Your task to perform on an android device: Do I have any events tomorrow? Image 0: 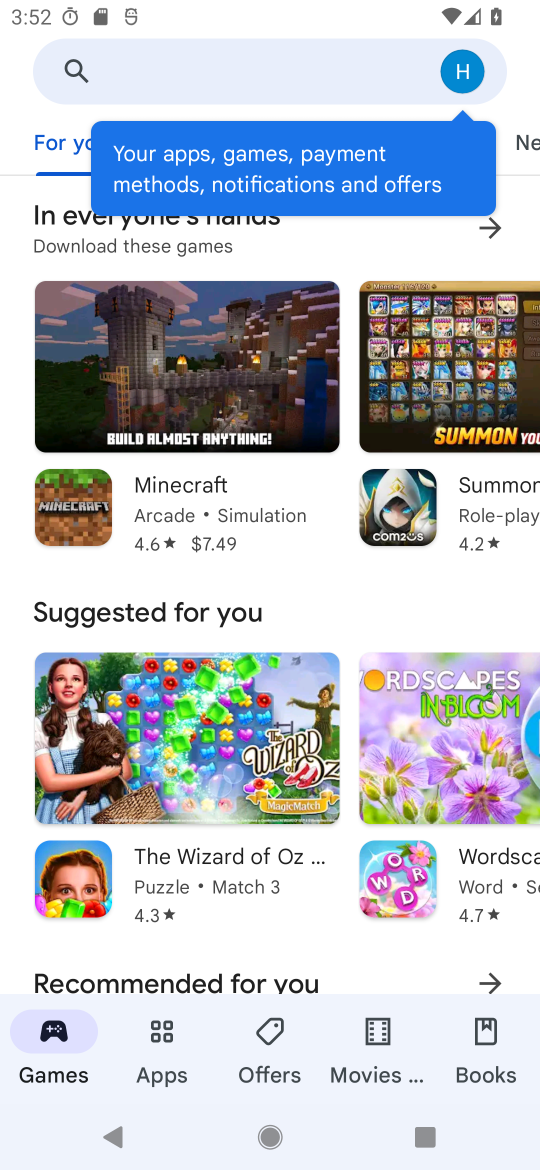
Step 0: press home button
Your task to perform on an android device: Do I have any events tomorrow? Image 1: 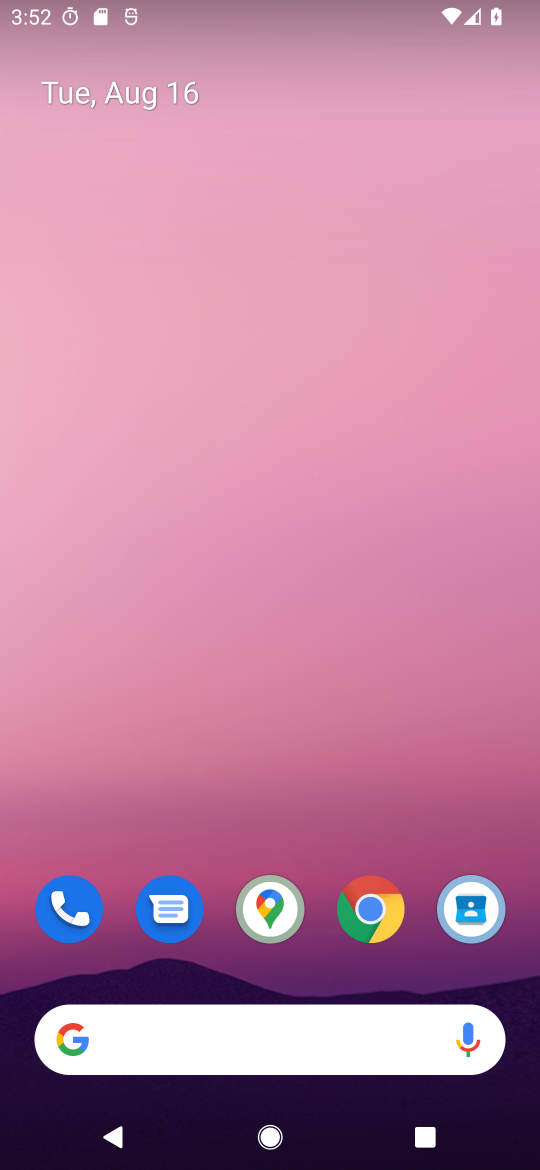
Step 1: drag from (253, 934) to (198, 47)
Your task to perform on an android device: Do I have any events tomorrow? Image 2: 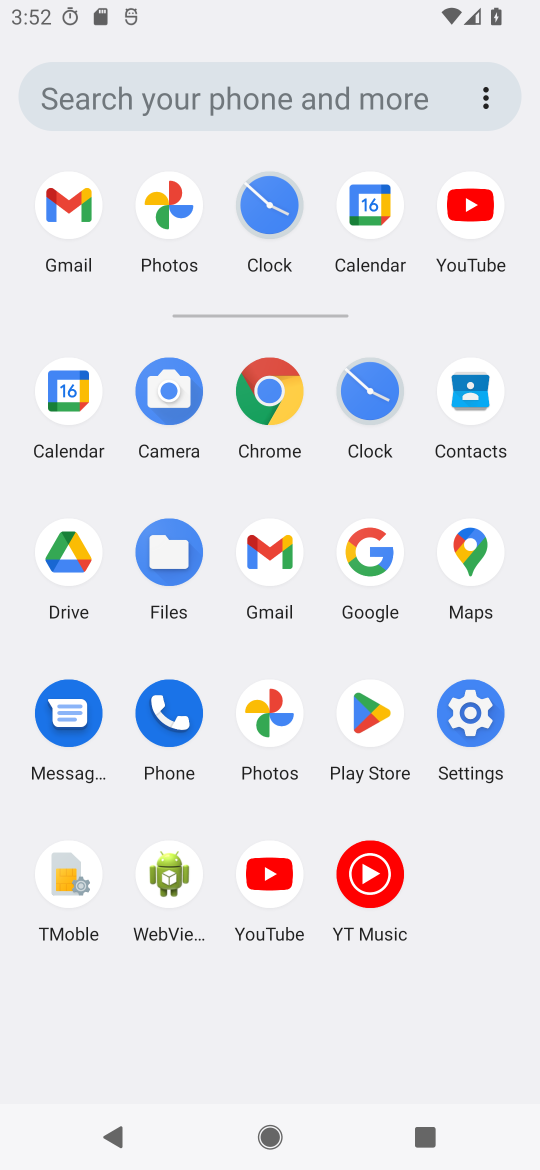
Step 2: click (58, 390)
Your task to perform on an android device: Do I have any events tomorrow? Image 3: 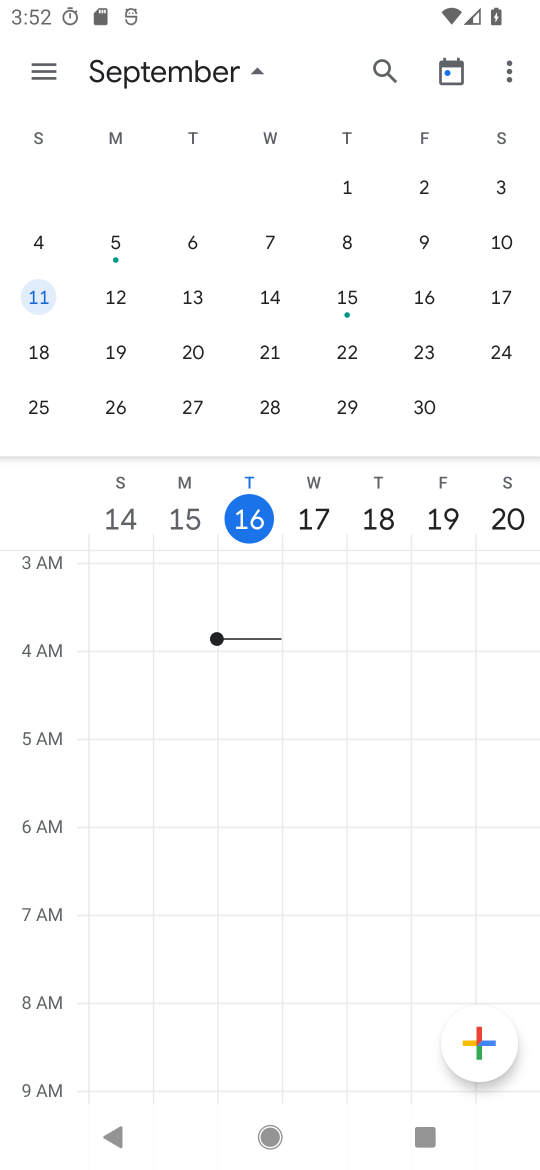
Step 3: task complete